Your task to perform on an android device: clear history in the chrome app Image 0: 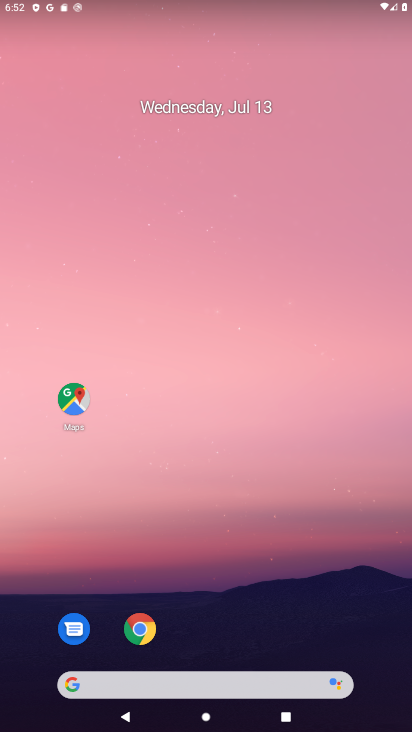
Step 0: click (145, 626)
Your task to perform on an android device: clear history in the chrome app Image 1: 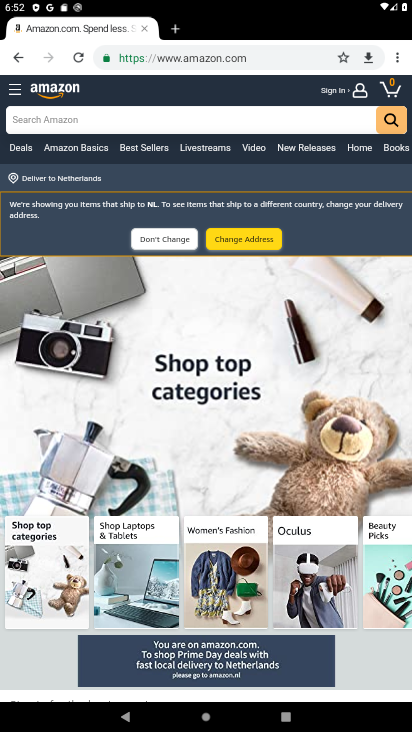
Step 1: click (393, 64)
Your task to perform on an android device: clear history in the chrome app Image 2: 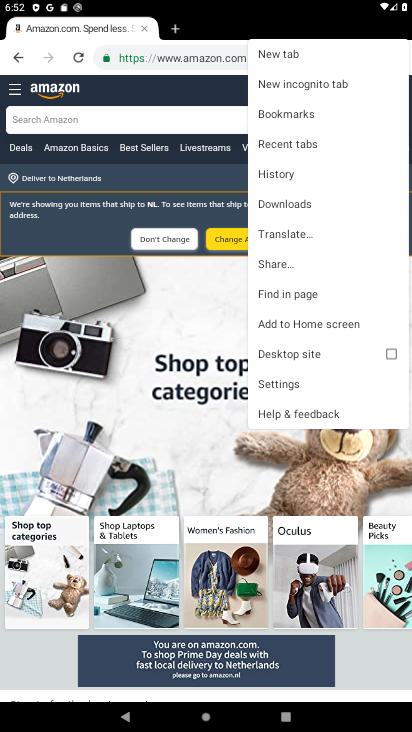
Step 2: click (282, 169)
Your task to perform on an android device: clear history in the chrome app Image 3: 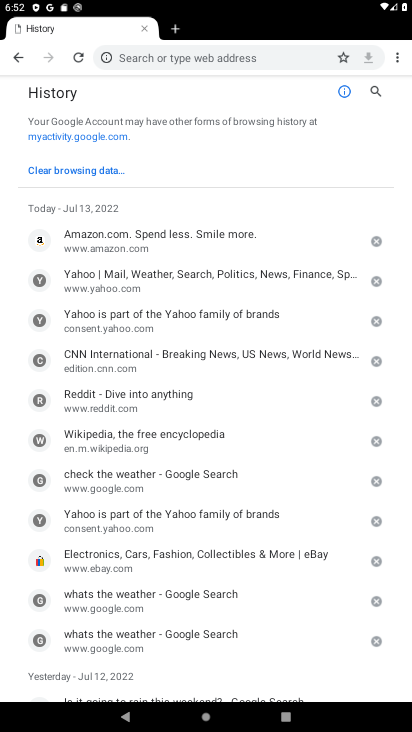
Step 3: click (95, 171)
Your task to perform on an android device: clear history in the chrome app Image 4: 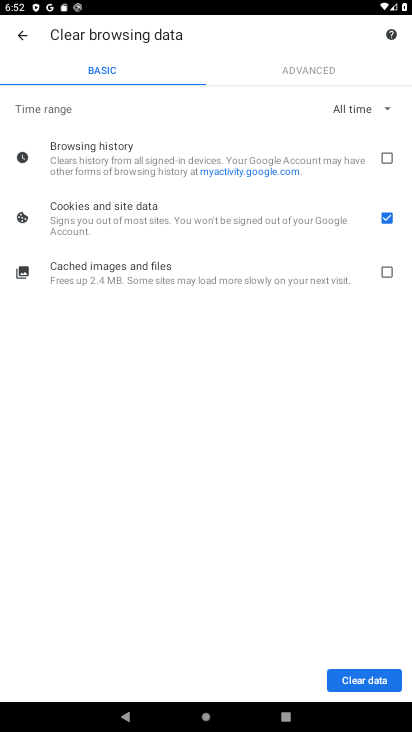
Step 4: click (381, 159)
Your task to perform on an android device: clear history in the chrome app Image 5: 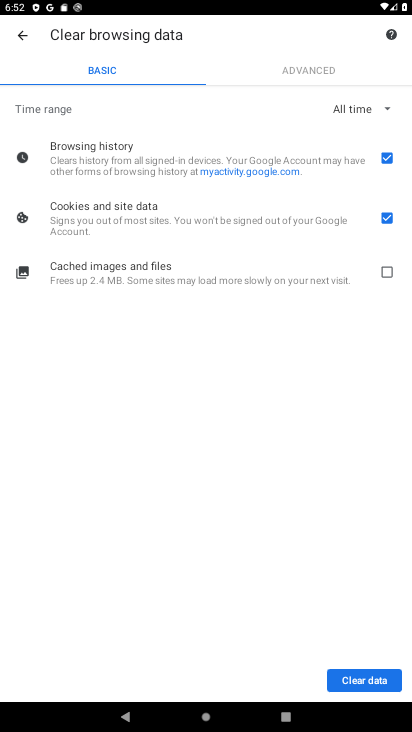
Step 5: click (382, 218)
Your task to perform on an android device: clear history in the chrome app Image 6: 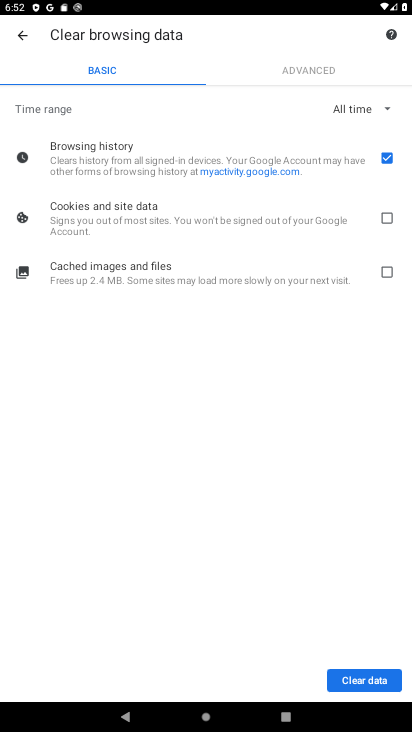
Step 6: click (349, 680)
Your task to perform on an android device: clear history in the chrome app Image 7: 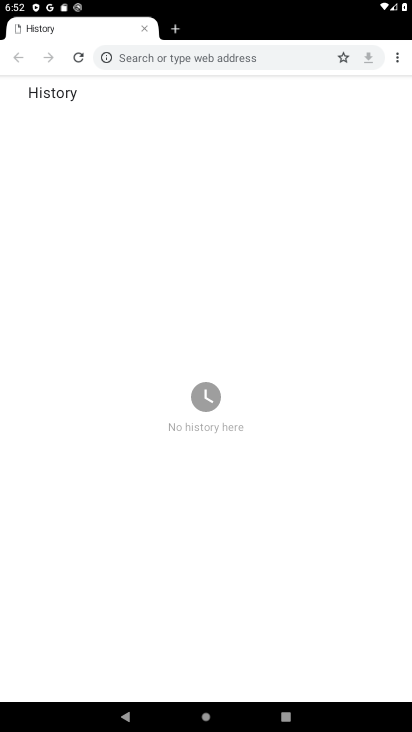
Step 7: task complete